Your task to perform on an android device: Search for vegetarian restaurants on Maps Image 0: 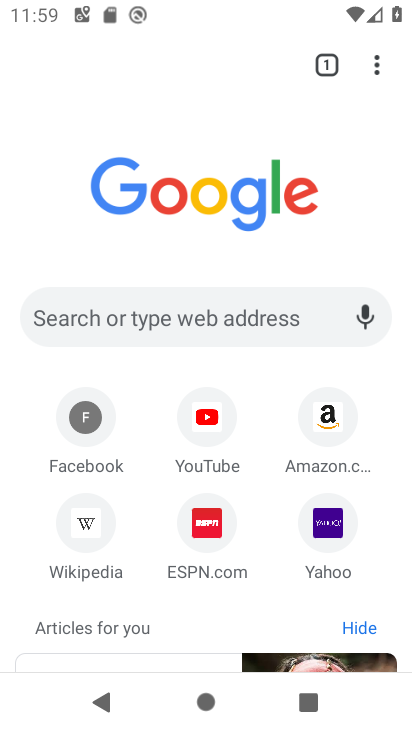
Step 0: press home button
Your task to perform on an android device: Search for vegetarian restaurants on Maps Image 1: 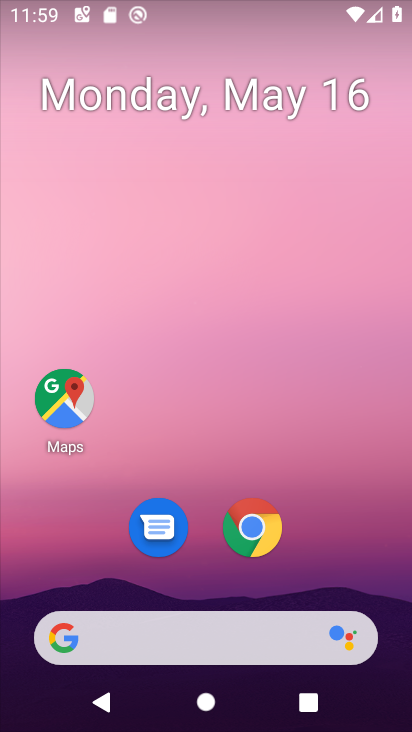
Step 1: click (62, 385)
Your task to perform on an android device: Search for vegetarian restaurants on Maps Image 2: 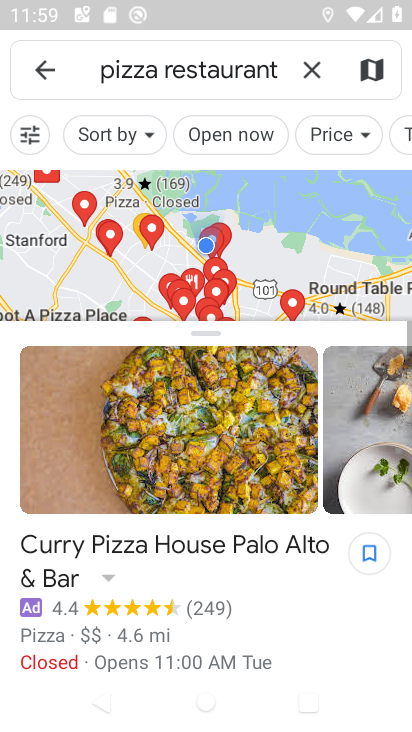
Step 2: click (305, 71)
Your task to perform on an android device: Search for vegetarian restaurants on Maps Image 3: 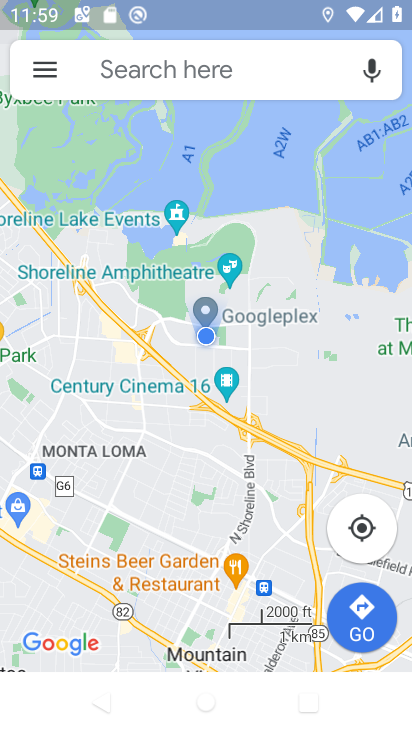
Step 3: click (117, 73)
Your task to perform on an android device: Search for vegetarian restaurants on Maps Image 4: 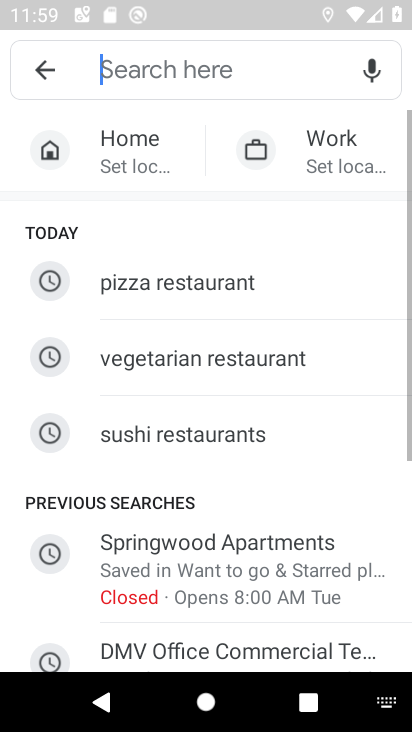
Step 4: click (187, 369)
Your task to perform on an android device: Search for vegetarian restaurants on Maps Image 5: 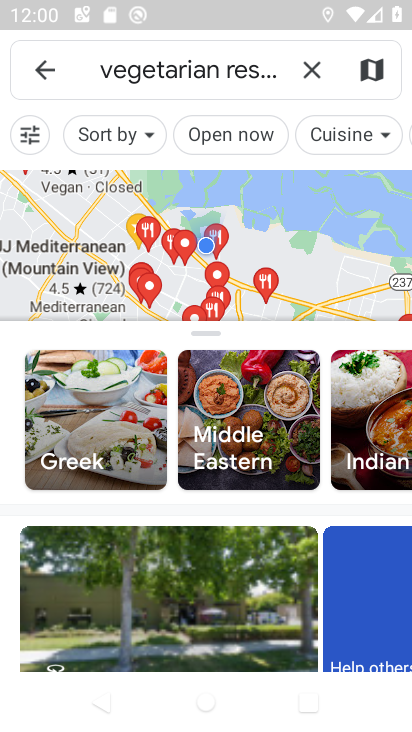
Step 5: task complete